Your task to perform on an android device: see tabs open on other devices in the chrome app Image 0: 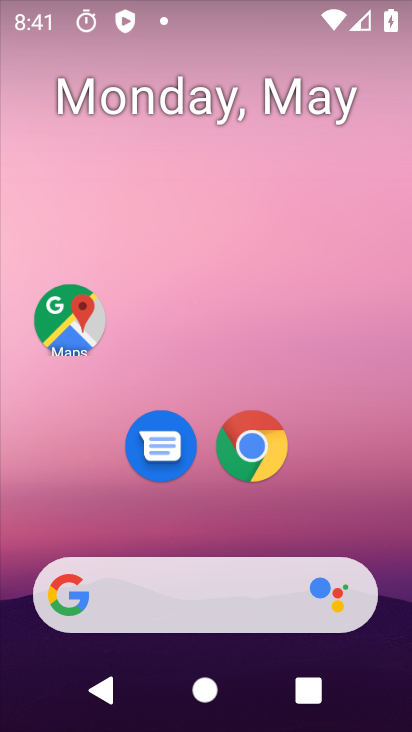
Step 0: click (278, 449)
Your task to perform on an android device: see tabs open on other devices in the chrome app Image 1: 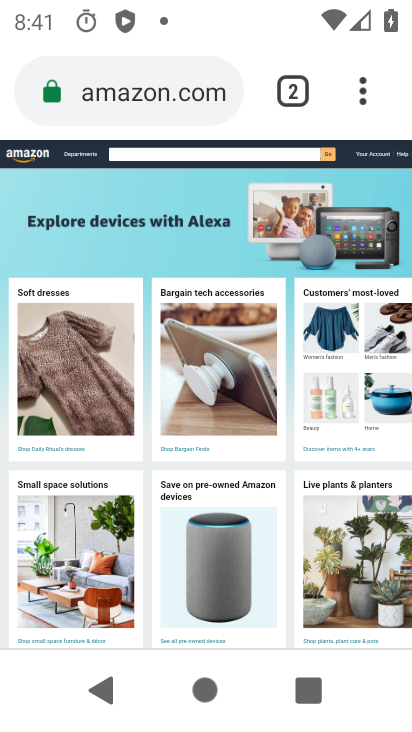
Step 1: click (364, 100)
Your task to perform on an android device: see tabs open on other devices in the chrome app Image 2: 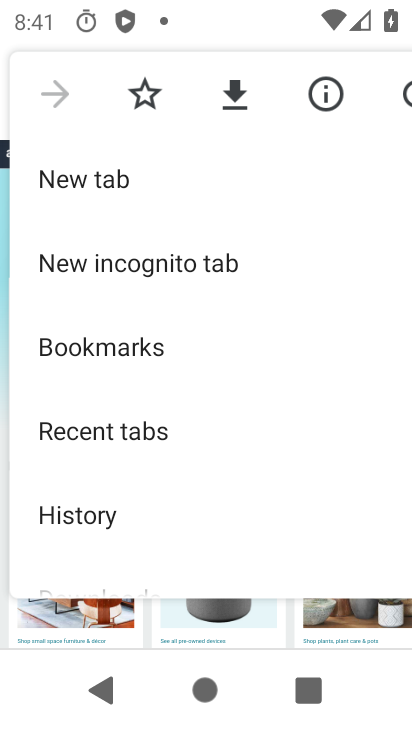
Step 2: click (102, 427)
Your task to perform on an android device: see tabs open on other devices in the chrome app Image 3: 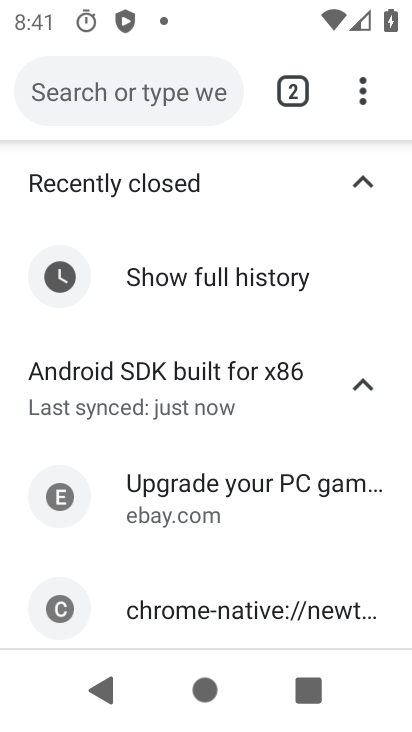
Step 3: task complete